Your task to perform on an android device: Go to network settings Image 0: 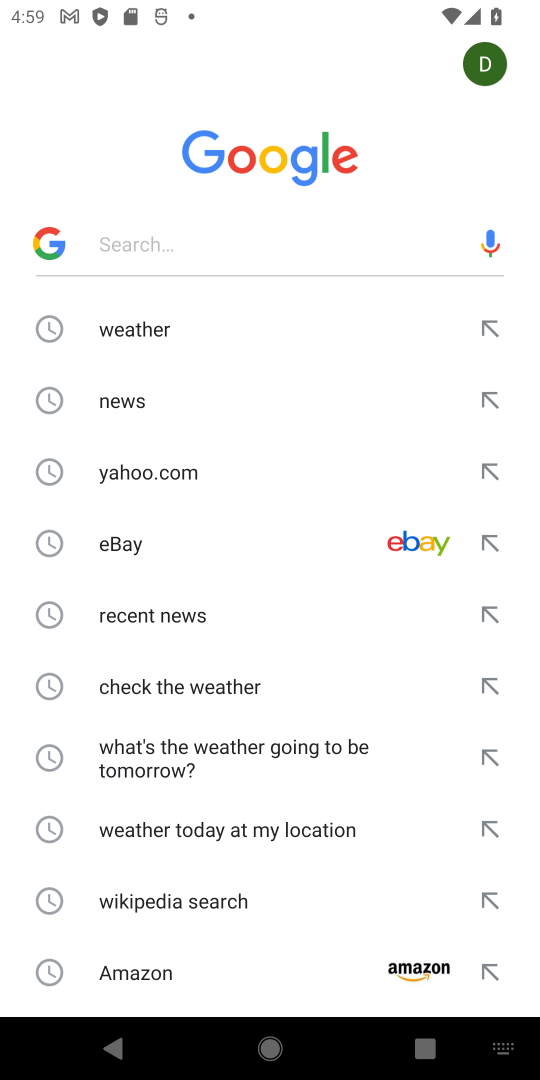
Step 0: press back button
Your task to perform on an android device: Go to network settings Image 1: 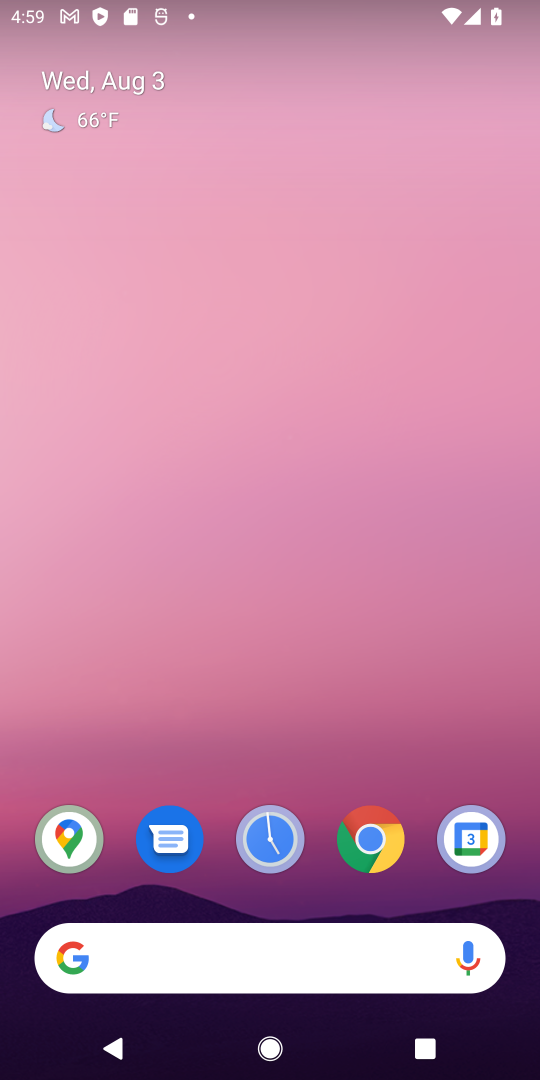
Step 1: drag from (154, 590) to (220, 90)
Your task to perform on an android device: Go to network settings Image 2: 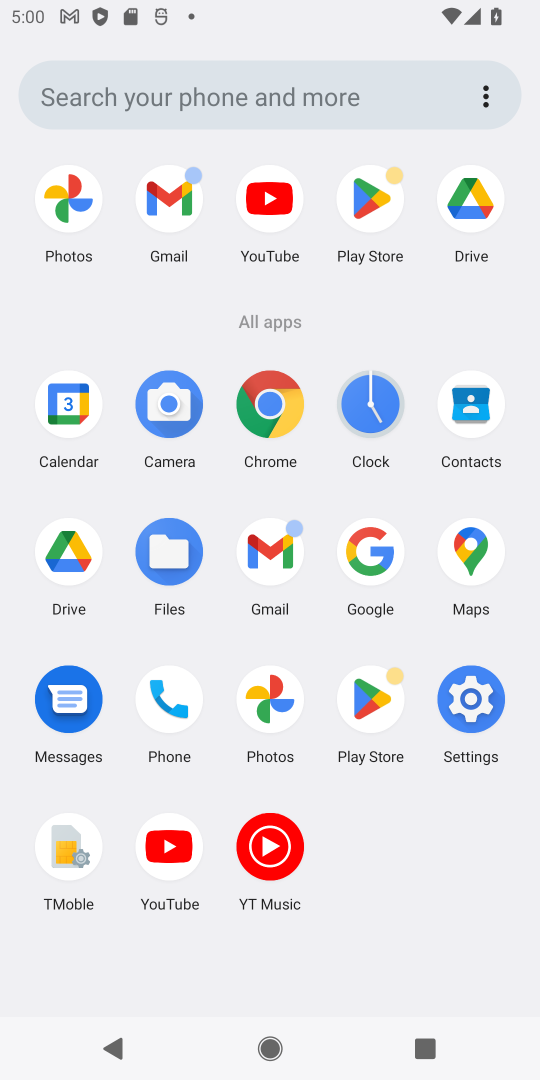
Step 2: click (473, 709)
Your task to perform on an android device: Go to network settings Image 3: 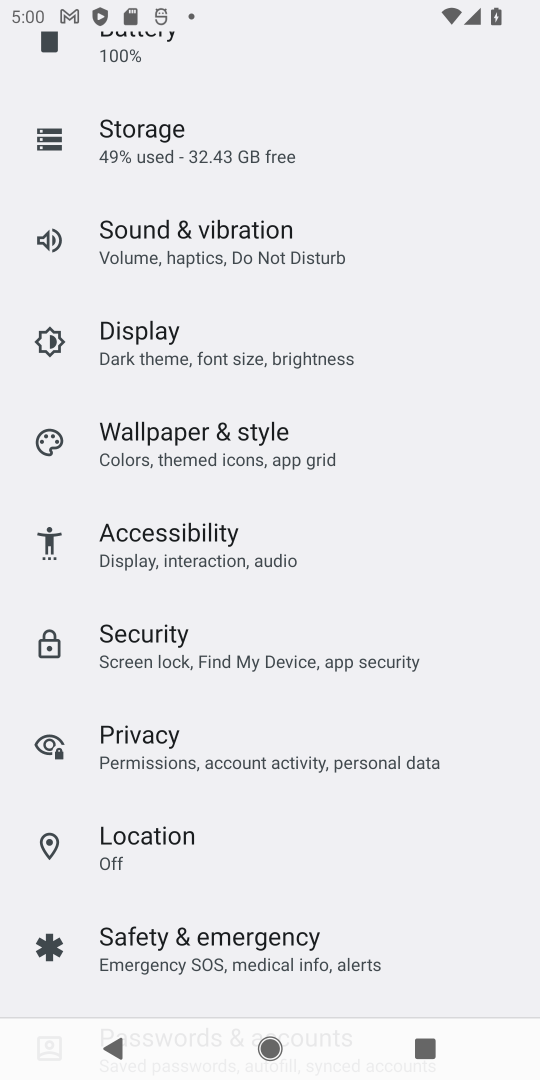
Step 3: drag from (238, 311) to (204, 924)
Your task to perform on an android device: Go to network settings Image 4: 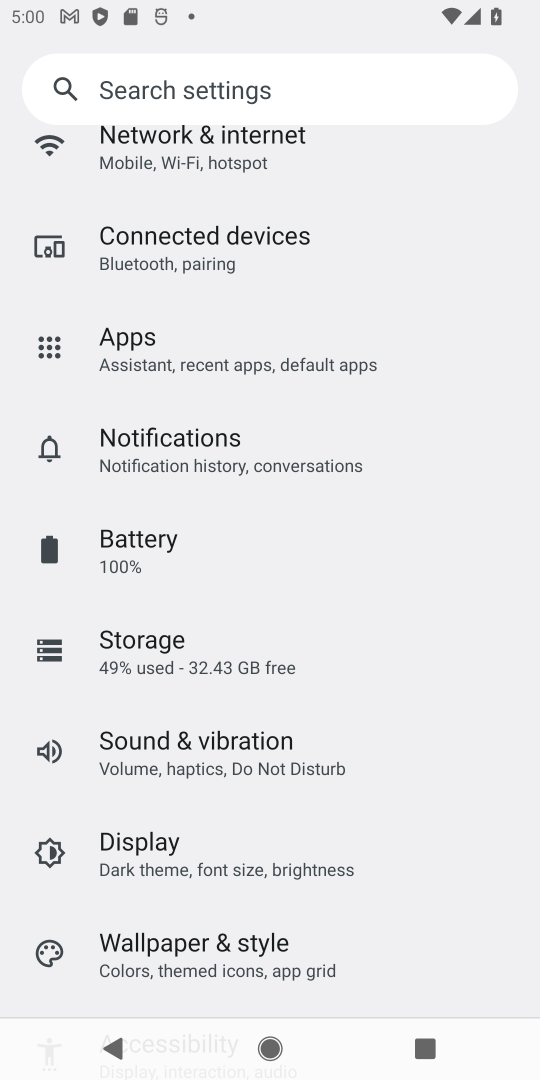
Step 4: click (198, 158)
Your task to perform on an android device: Go to network settings Image 5: 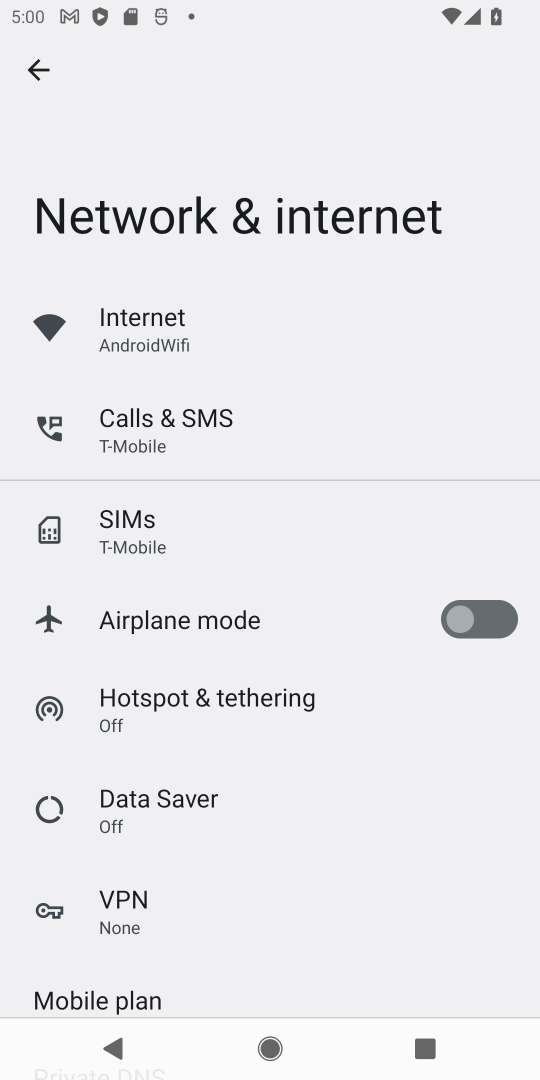
Step 5: task complete